Your task to perform on an android device: Open the calendar and show me this week's events? Image 0: 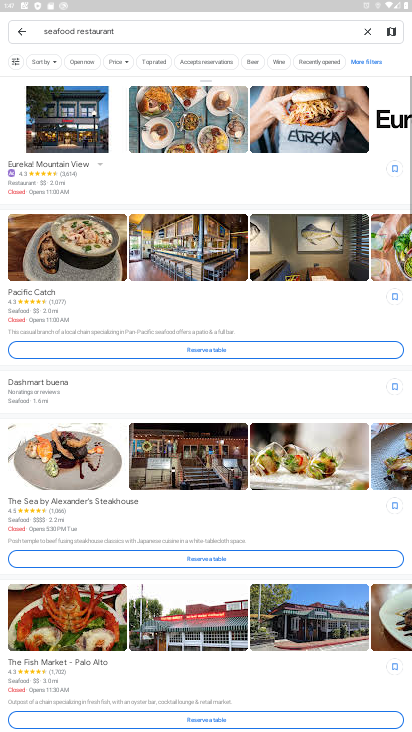
Step 0: press home button
Your task to perform on an android device: Open the calendar and show me this week's events? Image 1: 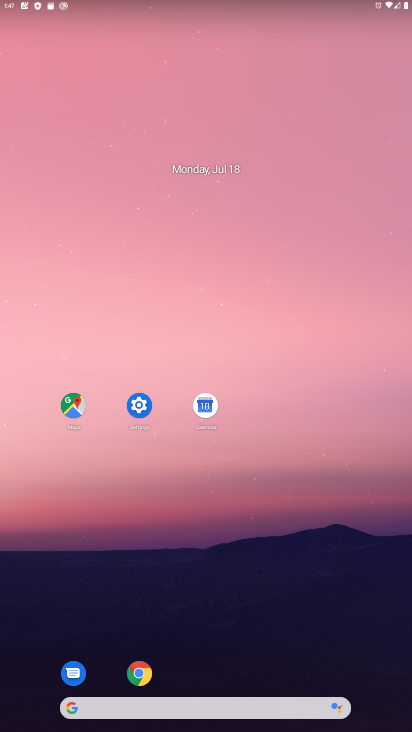
Step 1: click (191, 401)
Your task to perform on an android device: Open the calendar and show me this week's events? Image 2: 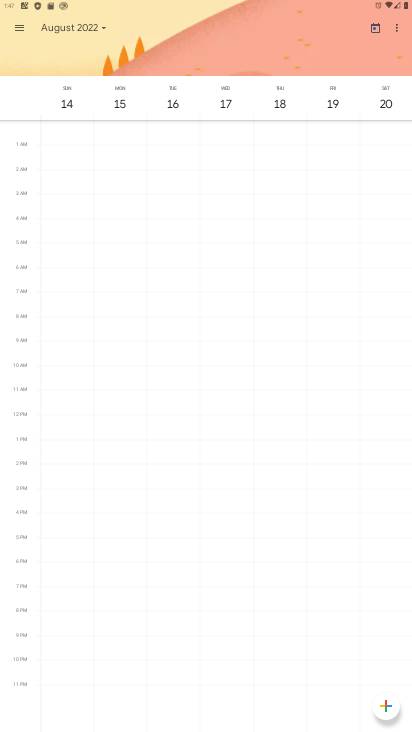
Step 2: click (96, 28)
Your task to perform on an android device: Open the calendar and show me this week's events? Image 3: 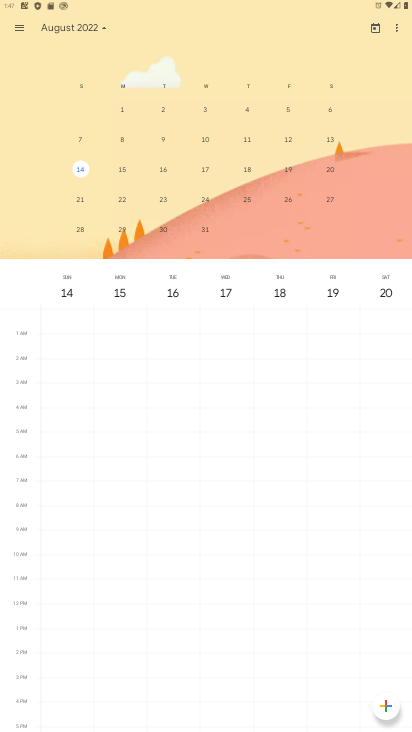
Step 3: drag from (74, 129) to (368, 137)
Your task to perform on an android device: Open the calendar and show me this week's events? Image 4: 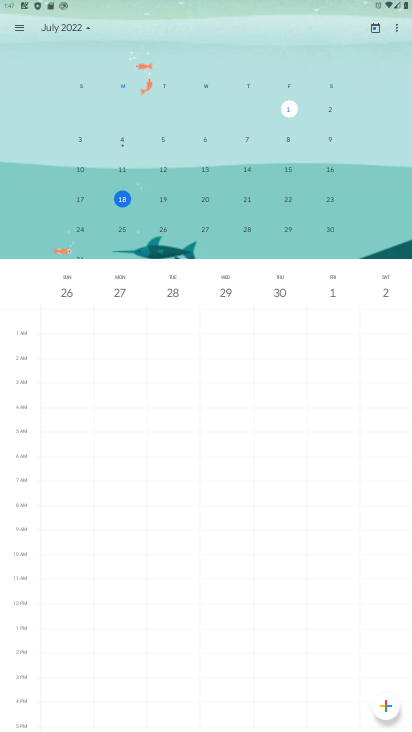
Step 4: click (166, 197)
Your task to perform on an android device: Open the calendar and show me this week's events? Image 5: 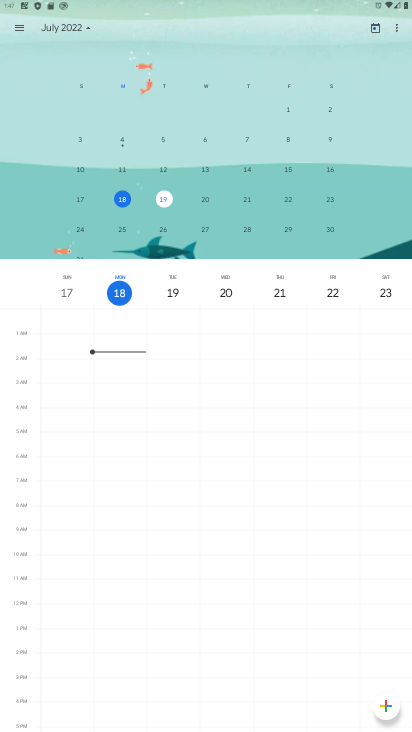
Step 5: click (20, 23)
Your task to perform on an android device: Open the calendar and show me this week's events? Image 6: 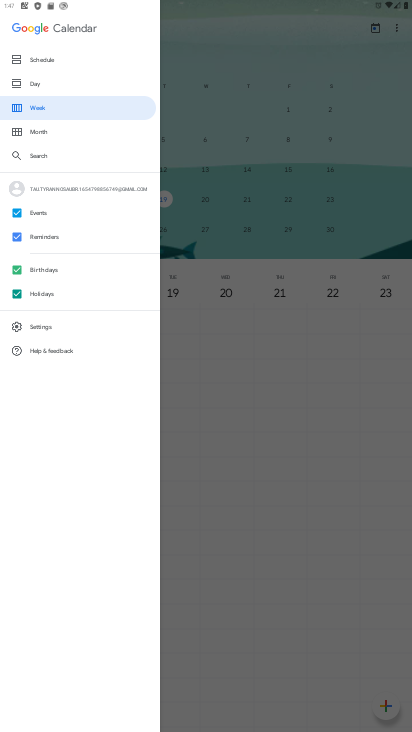
Step 6: click (43, 55)
Your task to perform on an android device: Open the calendar and show me this week's events? Image 7: 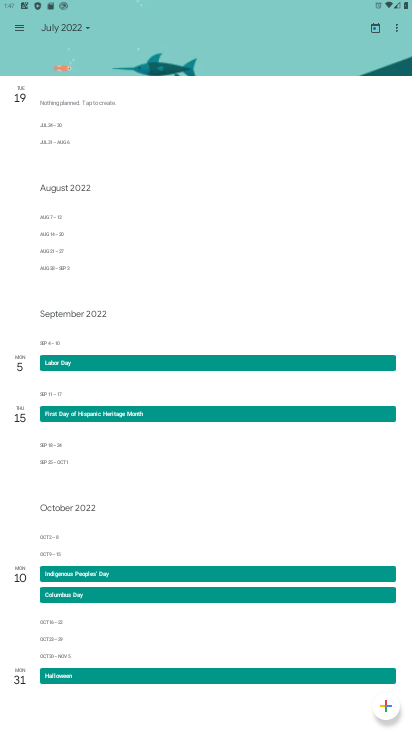
Step 7: task complete